Your task to perform on an android device: turn off javascript in the chrome app Image 0: 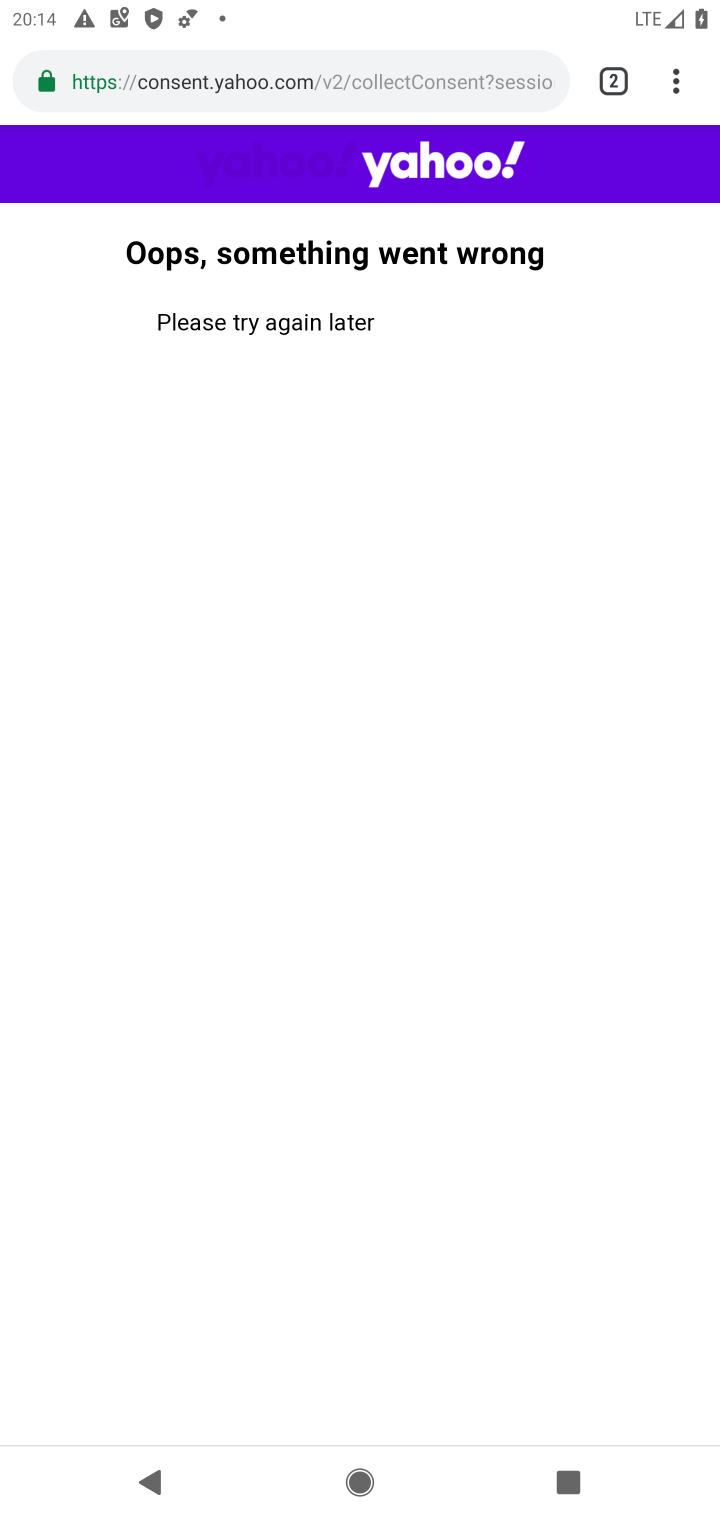
Step 0: press home button
Your task to perform on an android device: turn off javascript in the chrome app Image 1: 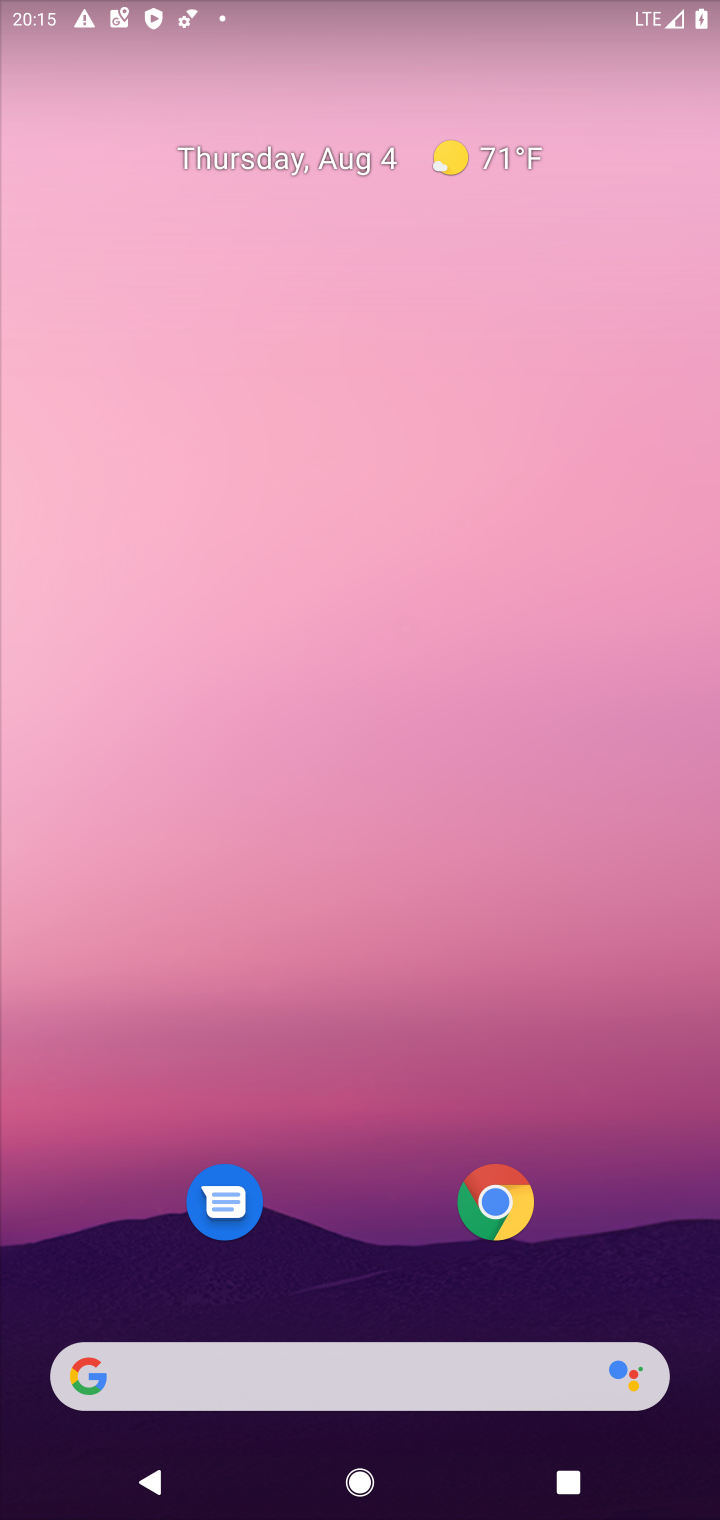
Step 1: click (478, 1199)
Your task to perform on an android device: turn off javascript in the chrome app Image 2: 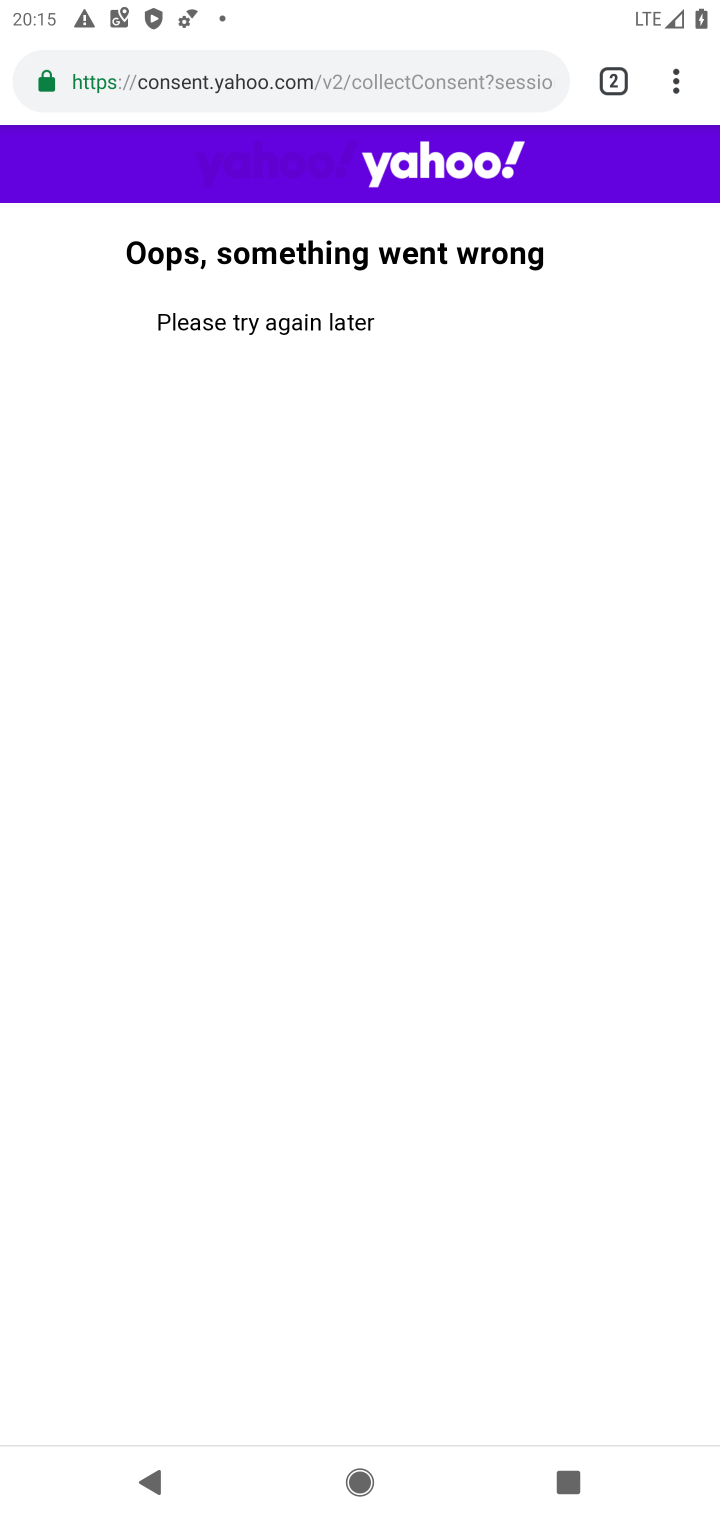
Step 2: click (681, 66)
Your task to perform on an android device: turn off javascript in the chrome app Image 3: 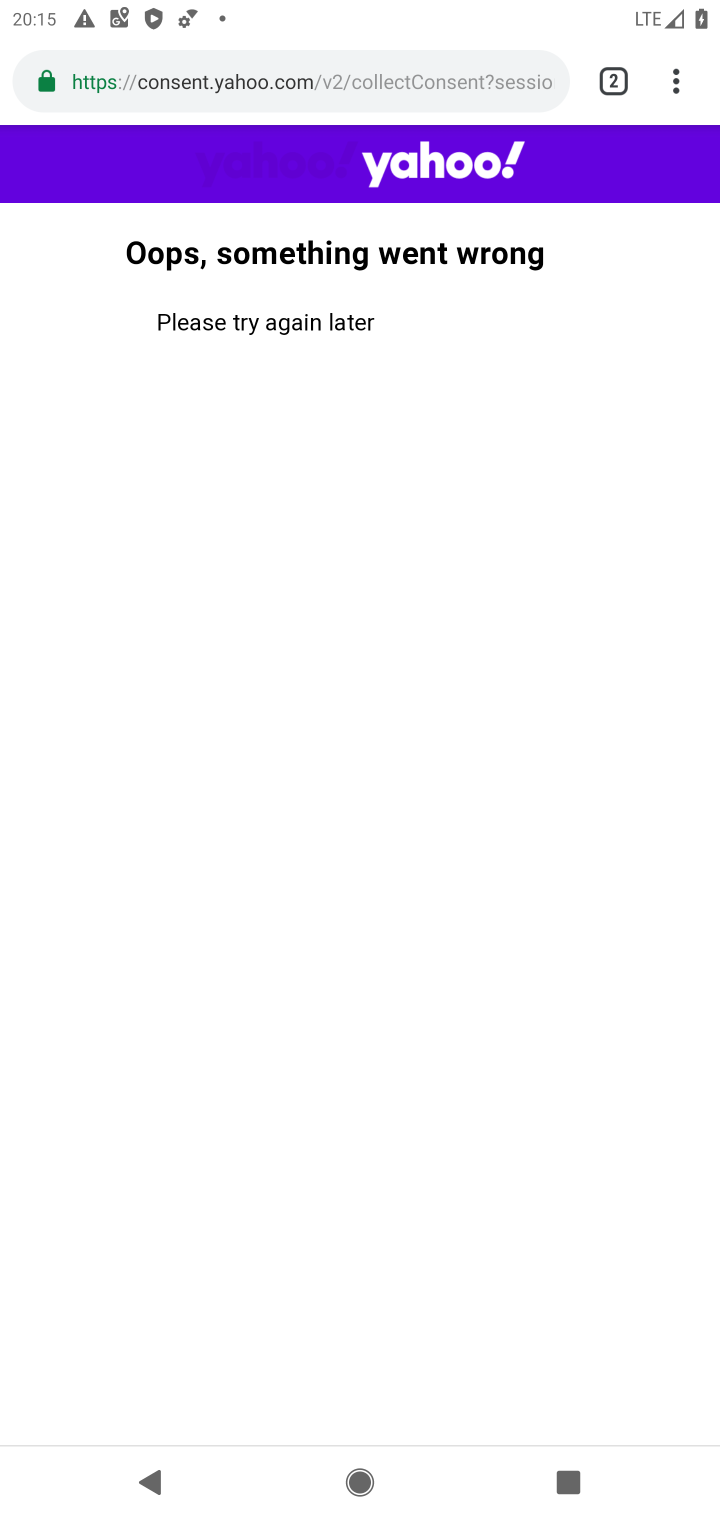
Step 3: click (674, 88)
Your task to perform on an android device: turn off javascript in the chrome app Image 4: 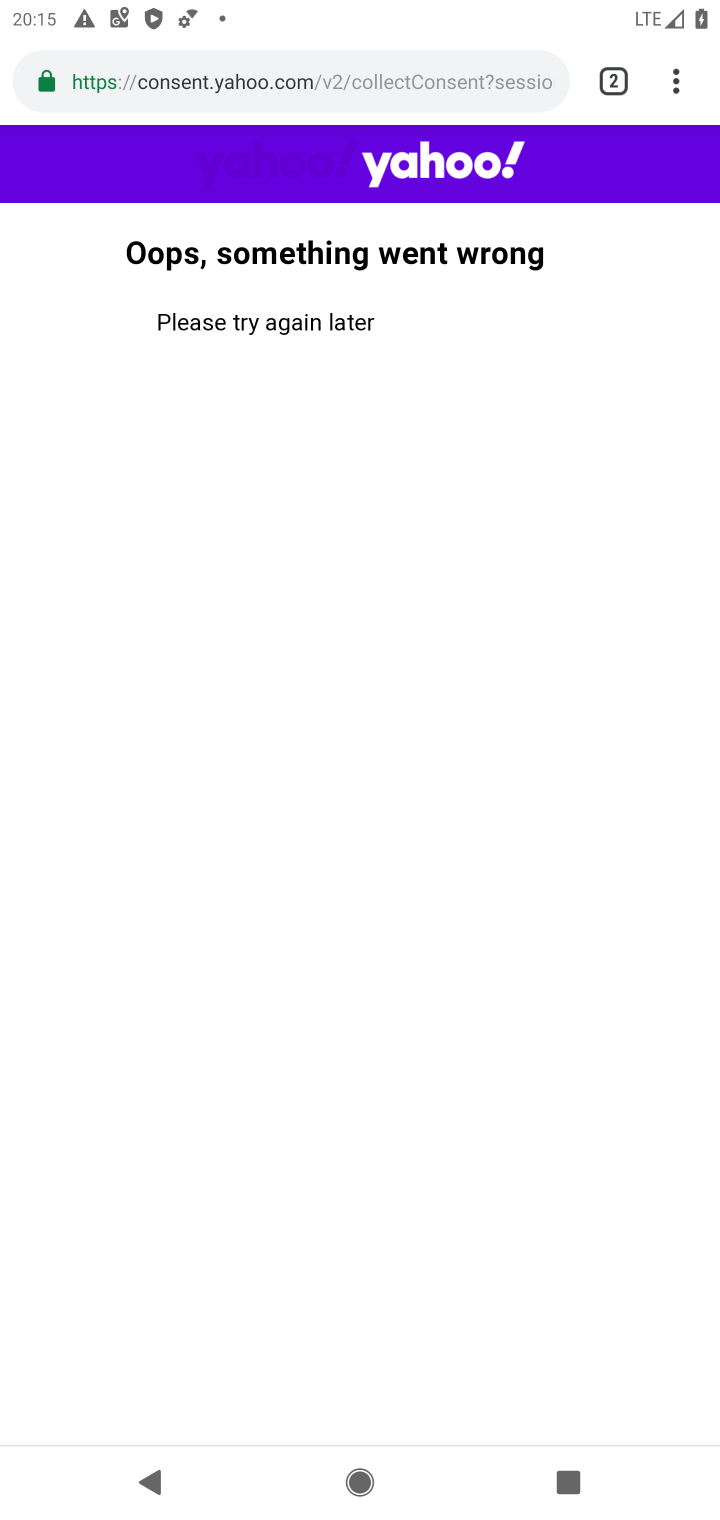
Step 4: drag from (672, 90) to (431, 897)
Your task to perform on an android device: turn off javascript in the chrome app Image 5: 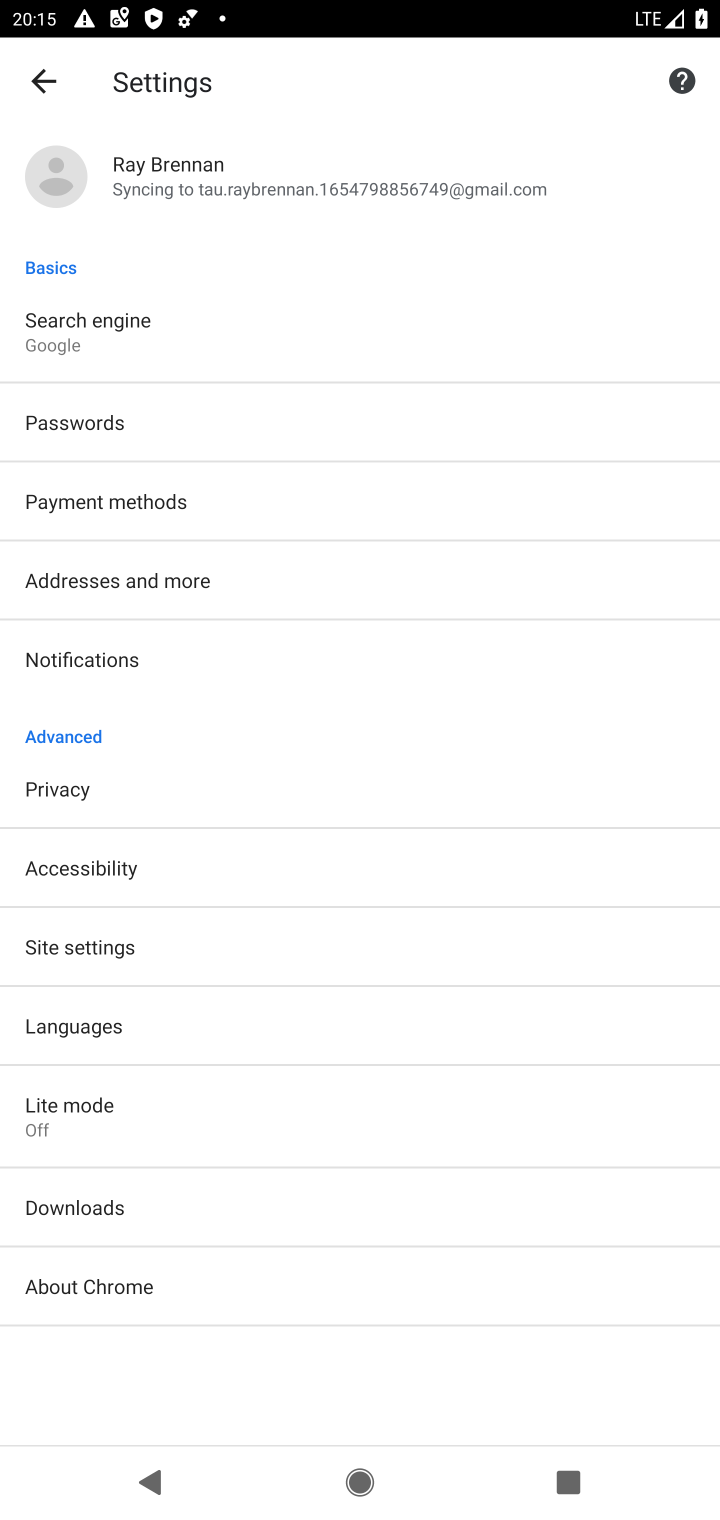
Step 5: click (178, 927)
Your task to perform on an android device: turn off javascript in the chrome app Image 6: 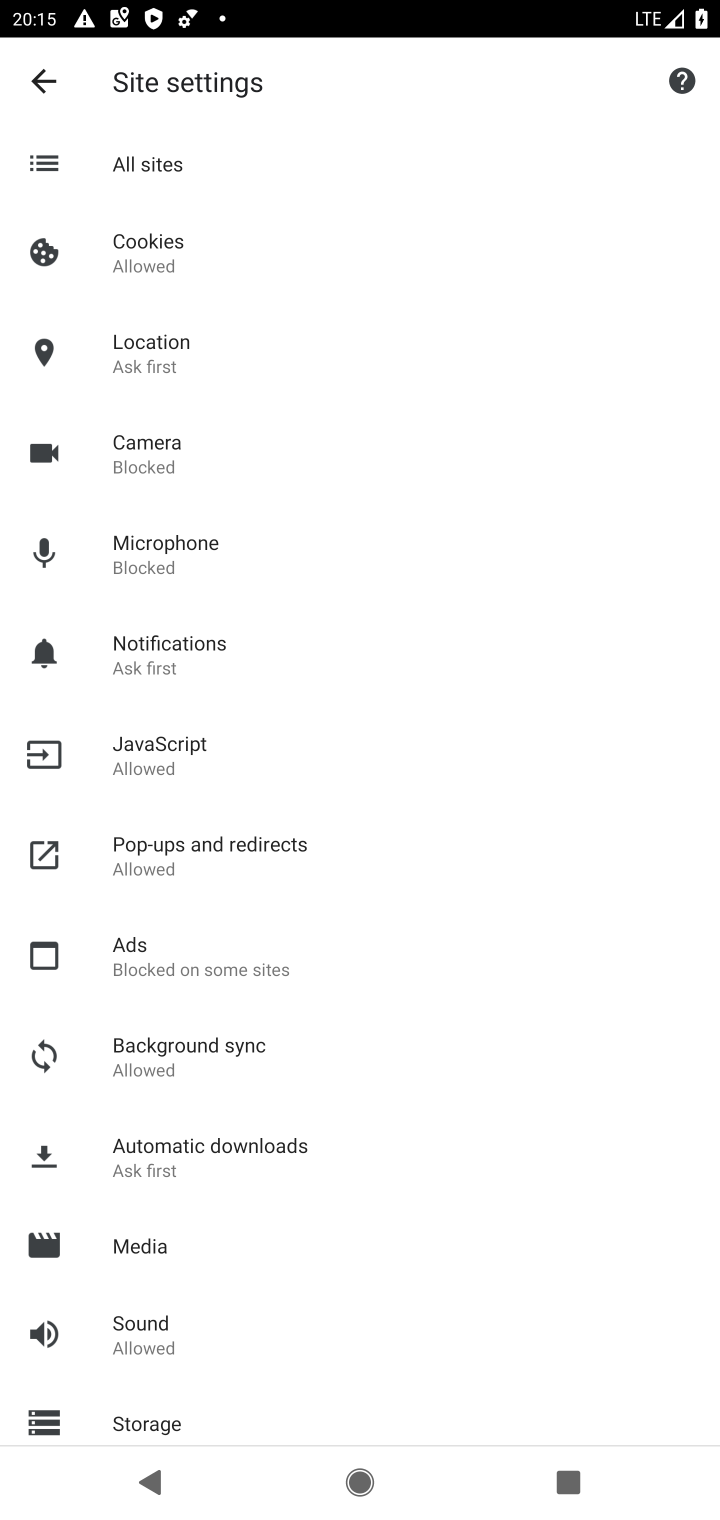
Step 6: click (214, 754)
Your task to perform on an android device: turn off javascript in the chrome app Image 7: 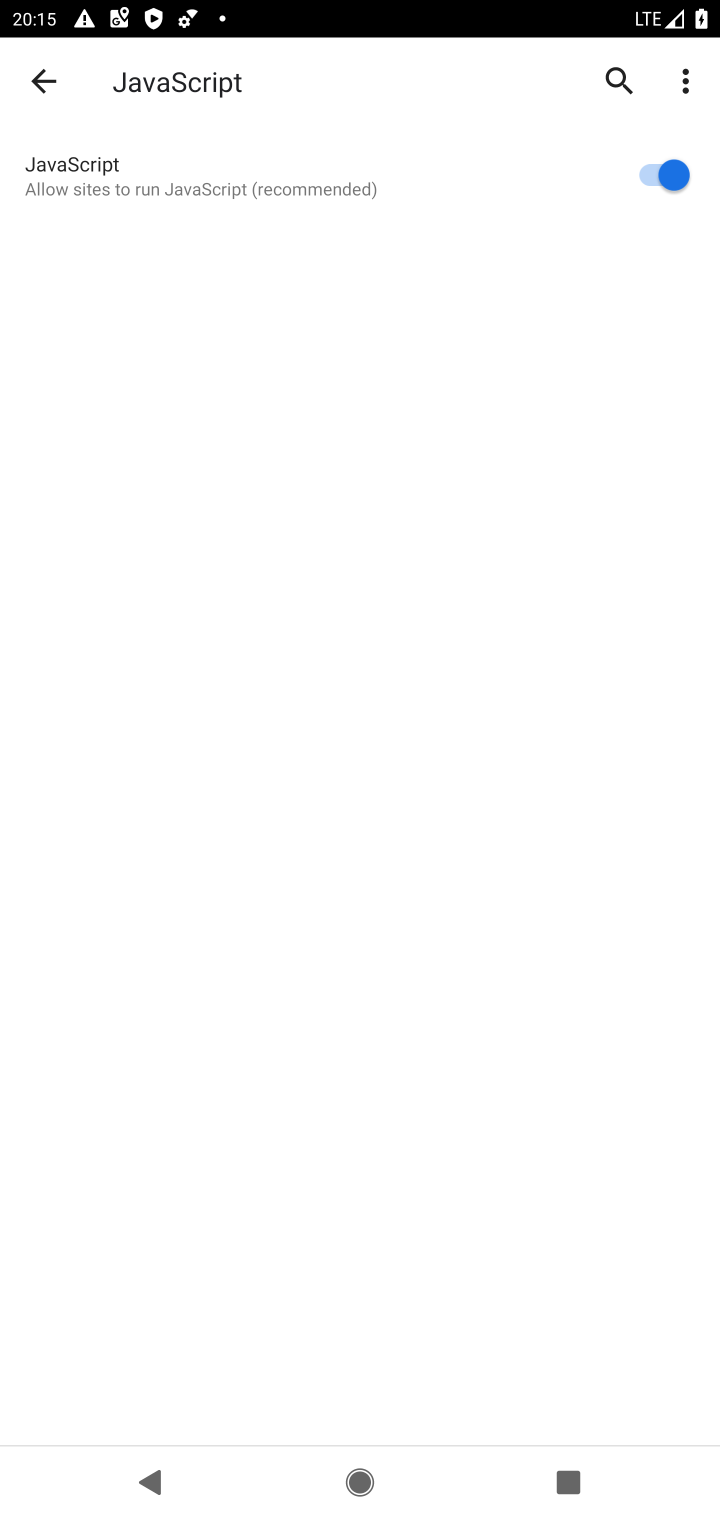
Step 7: click (634, 186)
Your task to perform on an android device: turn off javascript in the chrome app Image 8: 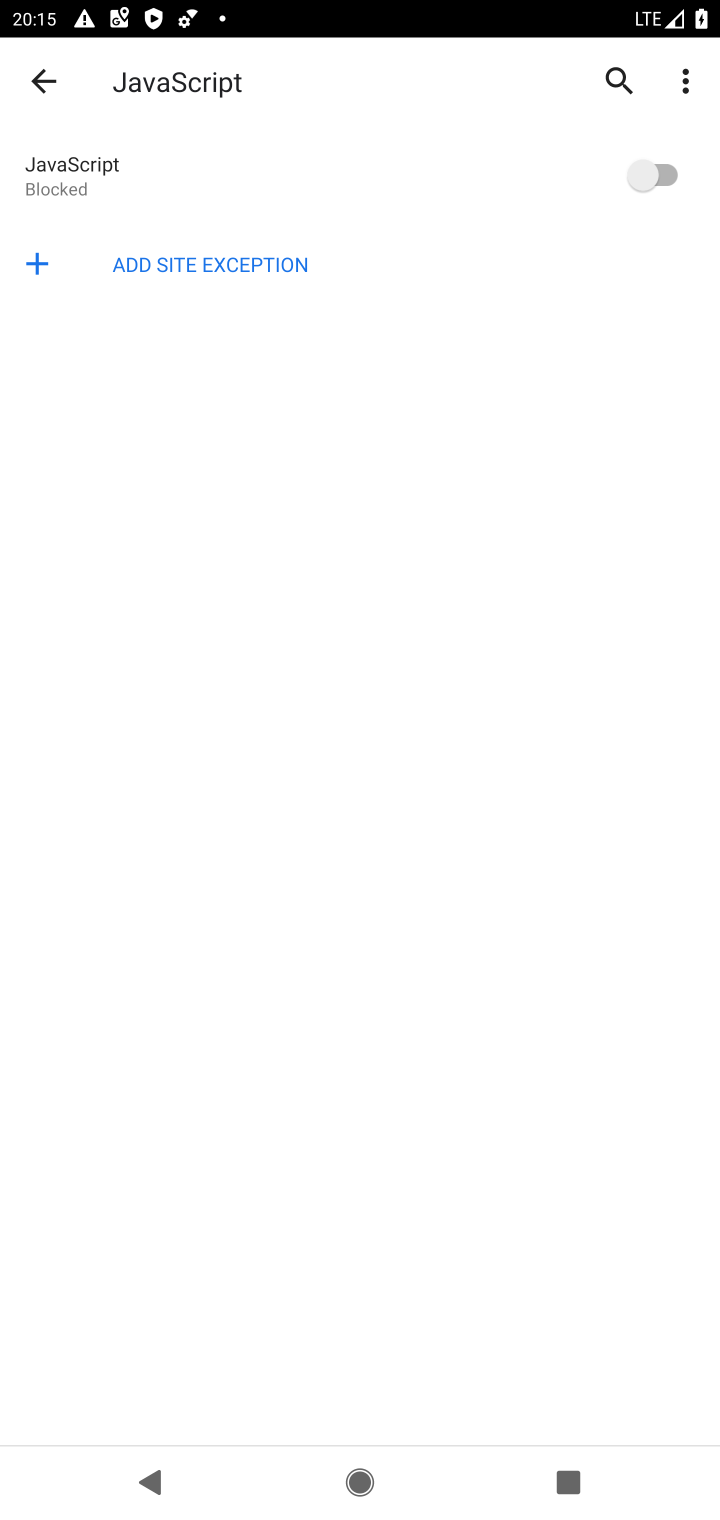
Step 8: task complete